Your task to perform on an android device: change notification settings in the gmail app Image 0: 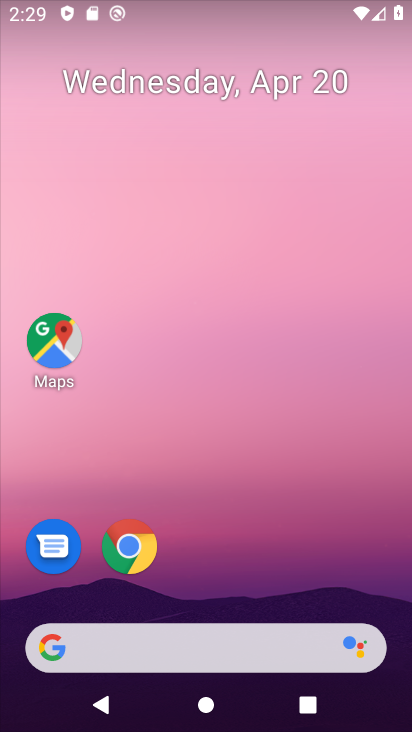
Step 0: drag from (167, 581) to (261, 98)
Your task to perform on an android device: change notification settings in the gmail app Image 1: 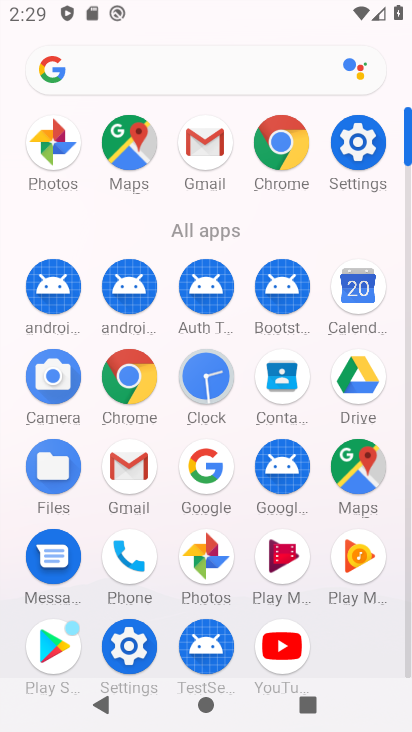
Step 1: click (119, 485)
Your task to perform on an android device: change notification settings in the gmail app Image 2: 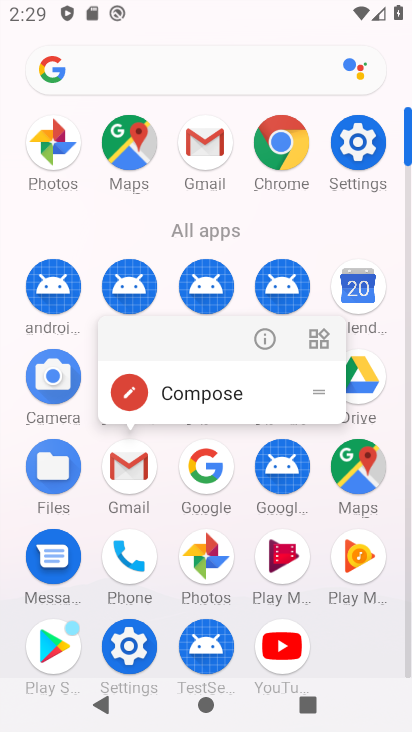
Step 2: click (130, 490)
Your task to perform on an android device: change notification settings in the gmail app Image 3: 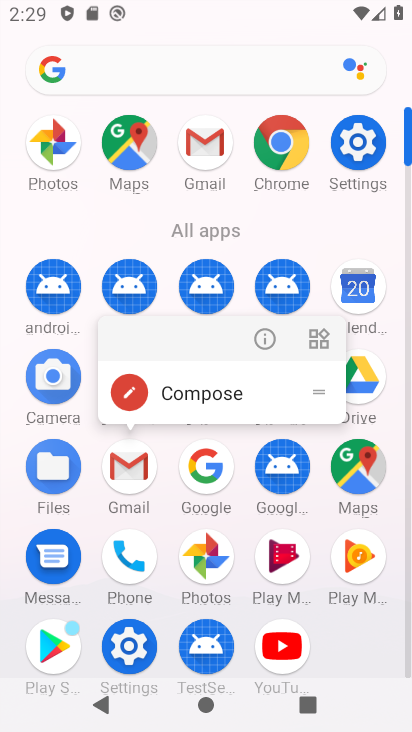
Step 3: click (131, 476)
Your task to perform on an android device: change notification settings in the gmail app Image 4: 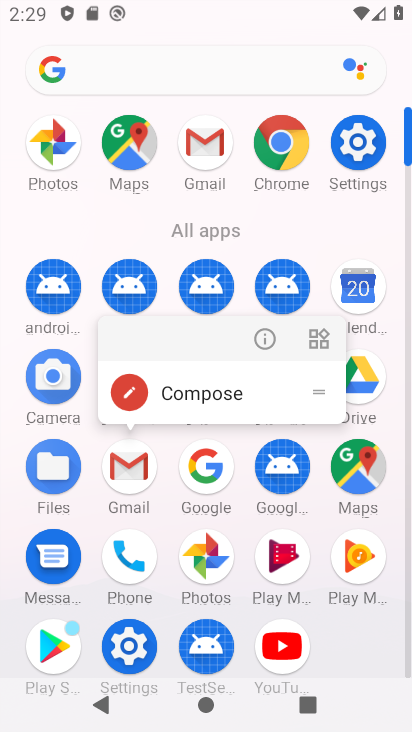
Step 4: click (133, 473)
Your task to perform on an android device: change notification settings in the gmail app Image 5: 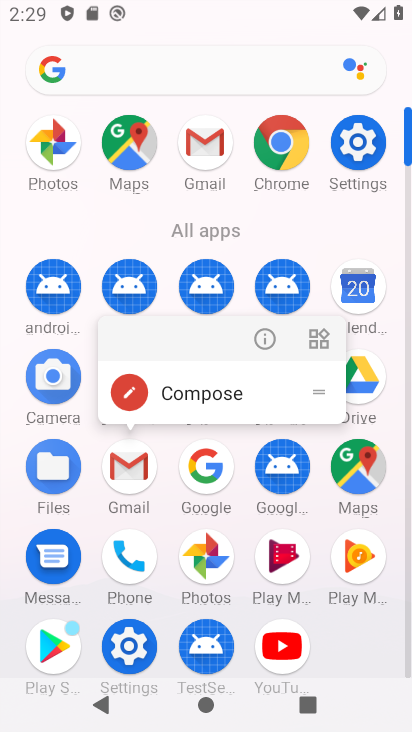
Step 5: click (133, 473)
Your task to perform on an android device: change notification settings in the gmail app Image 6: 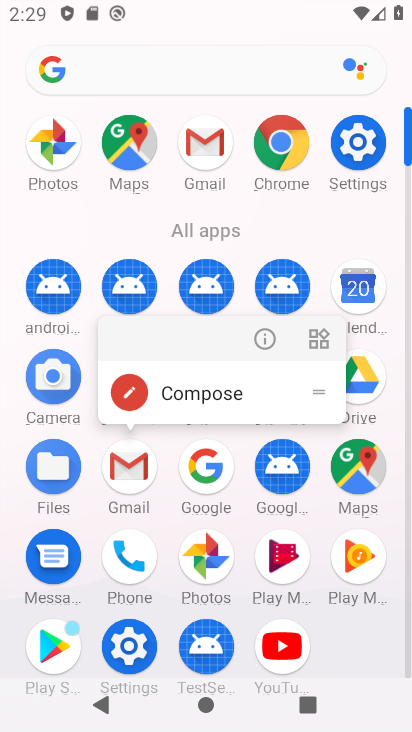
Step 6: click (133, 473)
Your task to perform on an android device: change notification settings in the gmail app Image 7: 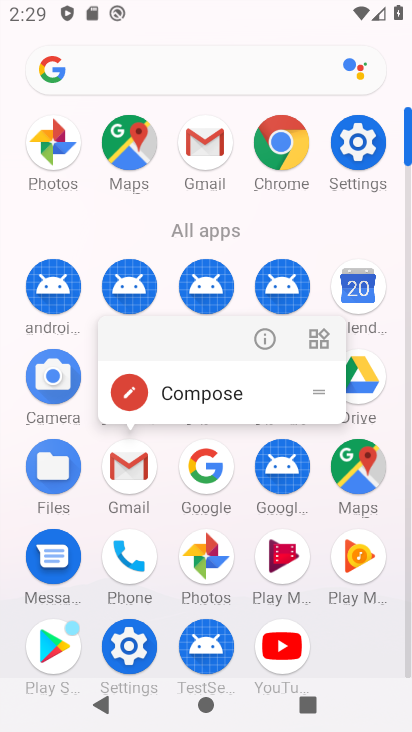
Step 7: click (149, 464)
Your task to perform on an android device: change notification settings in the gmail app Image 8: 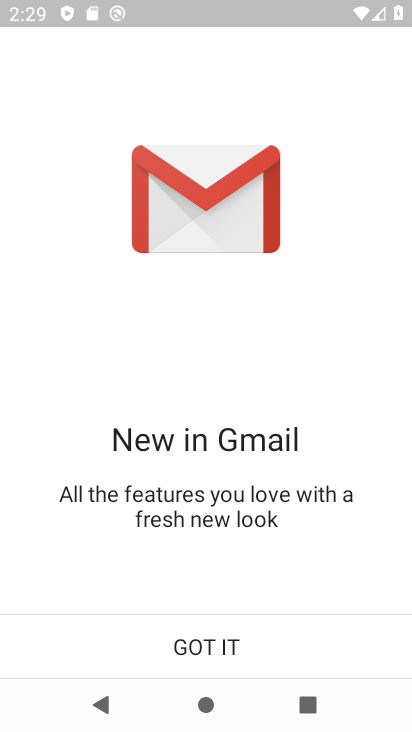
Step 8: click (249, 657)
Your task to perform on an android device: change notification settings in the gmail app Image 9: 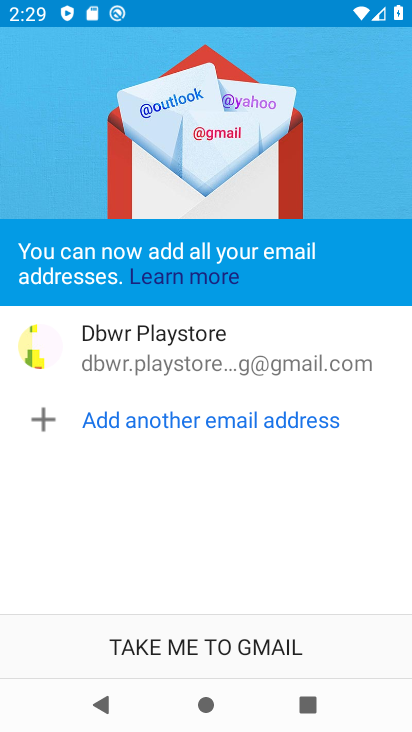
Step 9: click (207, 343)
Your task to perform on an android device: change notification settings in the gmail app Image 10: 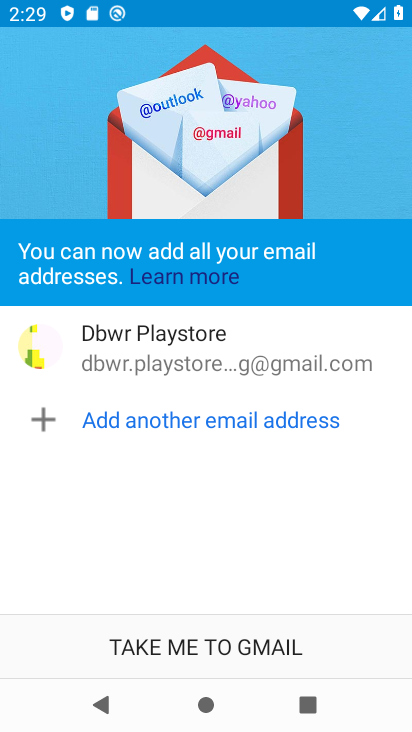
Step 10: click (207, 365)
Your task to perform on an android device: change notification settings in the gmail app Image 11: 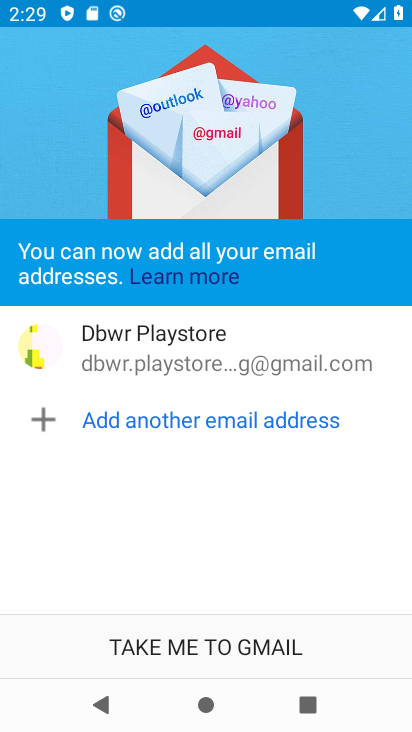
Step 11: click (162, 358)
Your task to perform on an android device: change notification settings in the gmail app Image 12: 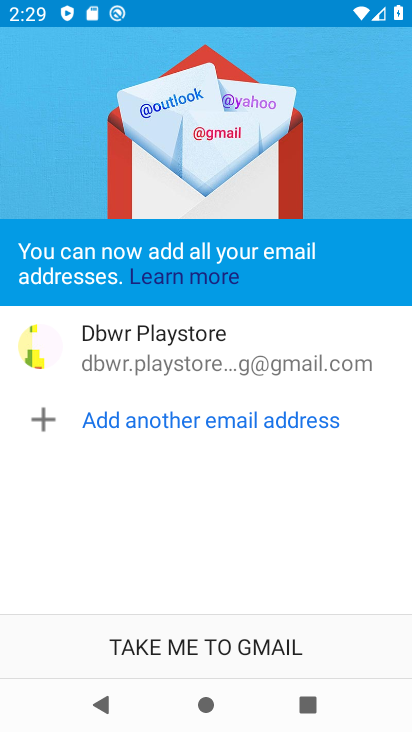
Step 12: click (200, 659)
Your task to perform on an android device: change notification settings in the gmail app Image 13: 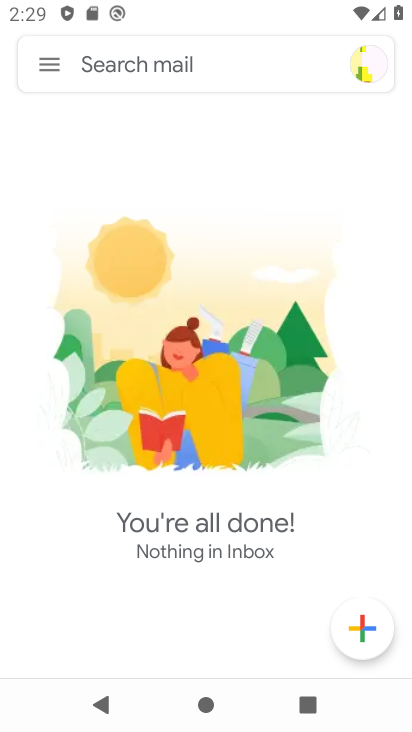
Step 13: click (59, 59)
Your task to perform on an android device: change notification settings in the gmail app Image 14: 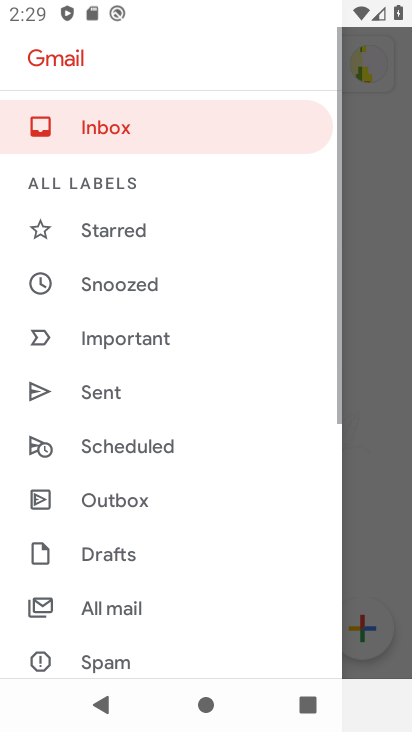
Step 14: drag from (151, 564) to (232, 216)
Your task to perform on an android device: change notification settings in the gmail app Image 15: 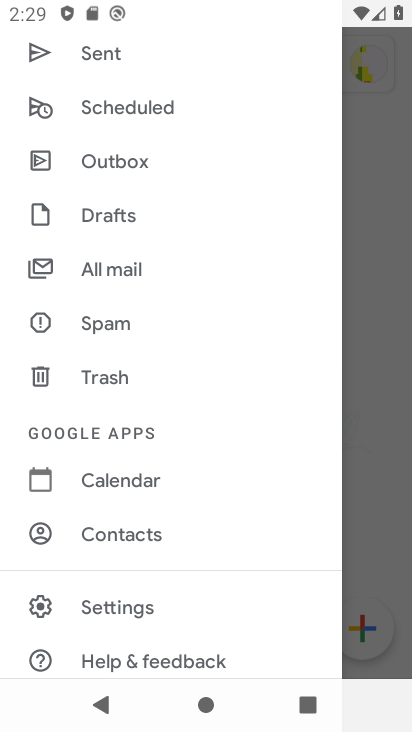
Step 15: click (146, 612)
Your task to perform on an android device: change notification settings in the gmail app Image 16: 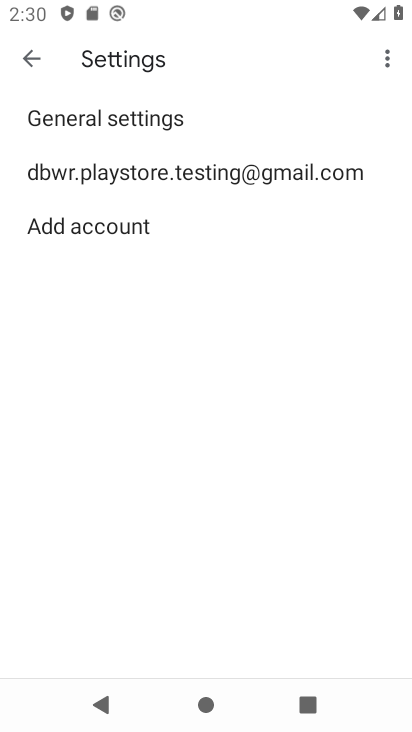
Step 16: click (182, 123)
Your task to perform on an android device: change notification settings in the gmail app Image 17: 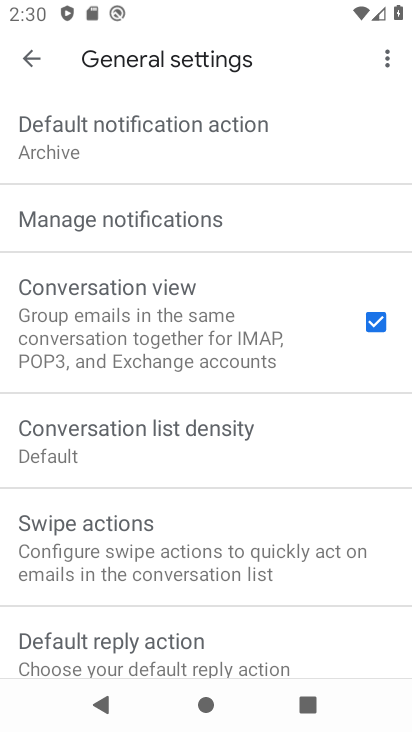
Step 17: drag from (169, 589) to (219, 578)
Your task to perform on an android device: change notification settings in the gmail app Image 18: 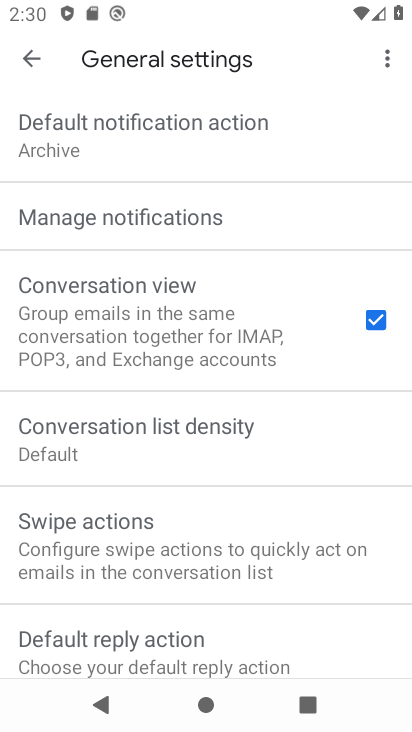
Step 18: click (200, 224)
Your task to perform on an android device: change notification settings in the gmail app Image 19: 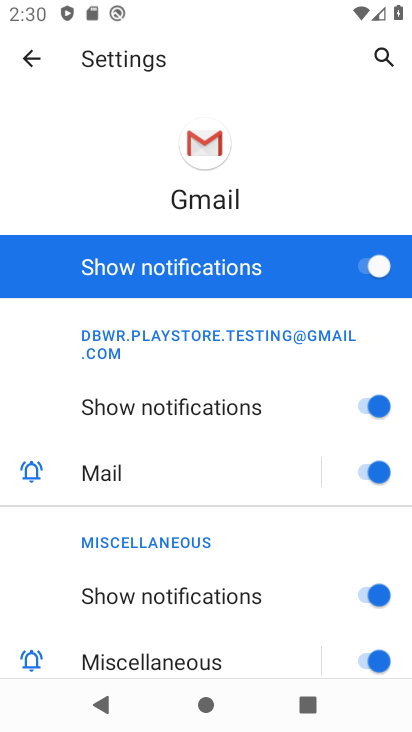
Step 19: click (356, 460)
Your task to perform on an android device: change notification settings in the gmail app Image 20: 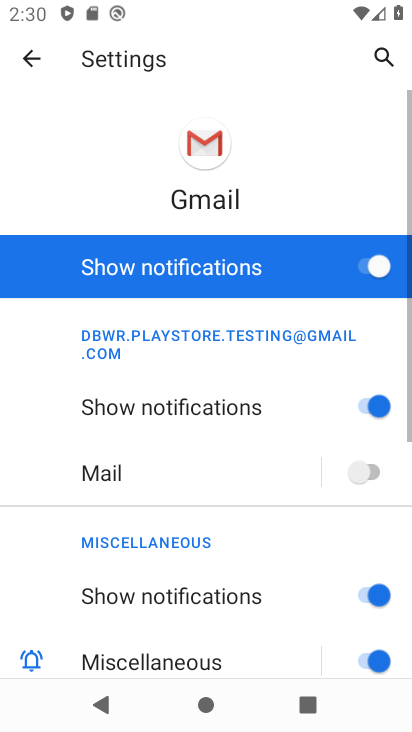
Step 20: drag from (152, 535) to (266, 277)
Your task to perform on an android device: change notification settings in the gmail app Image 21: 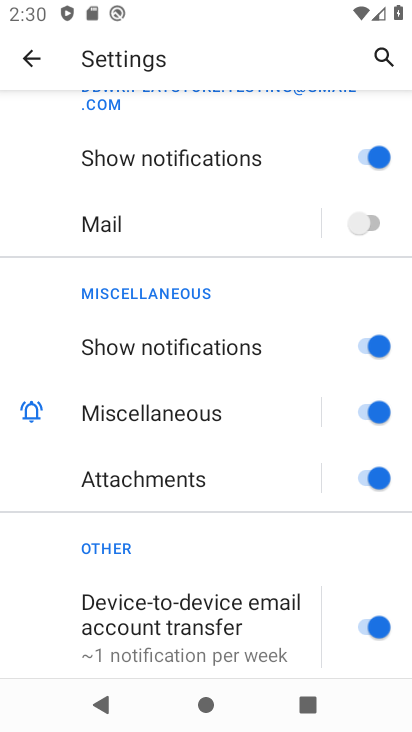
Step 21: click (365, 346)
Your task to perform on an android device: change notification settings in the gmail app Image 22: 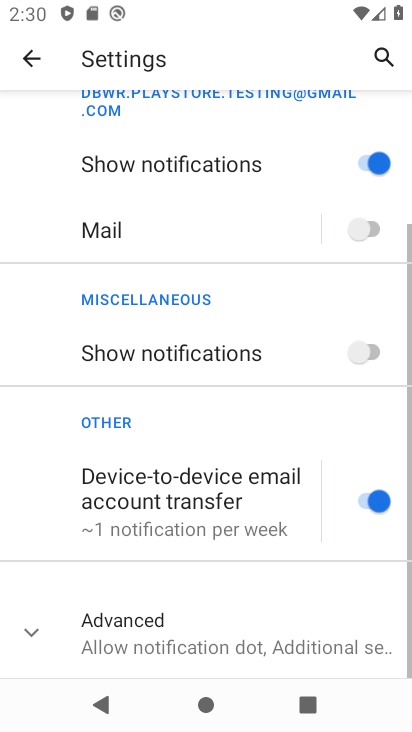
Step 22: drag from (207, 576) to (307, 290)
Your task to perform on an android device: change notification settings in the gmail app Image 23: 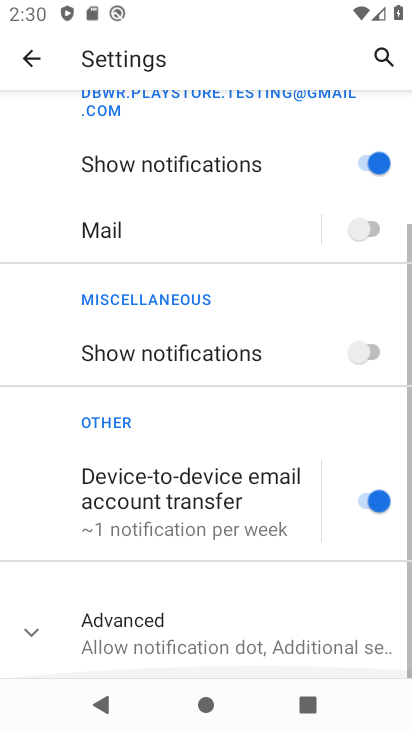
Step 23: click (185, 627)
Your task to perform on an android device: change notification settings in the gmail app Image 24: 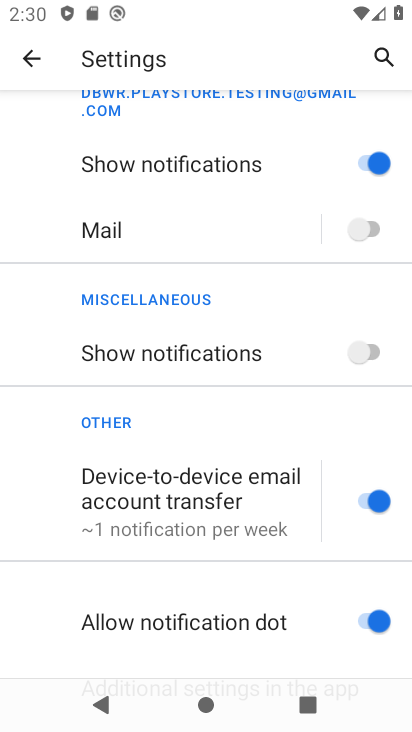
Step 24: click (382, 625)
Your task to perform on an android device: change notification settings in the gmail app Image 25: 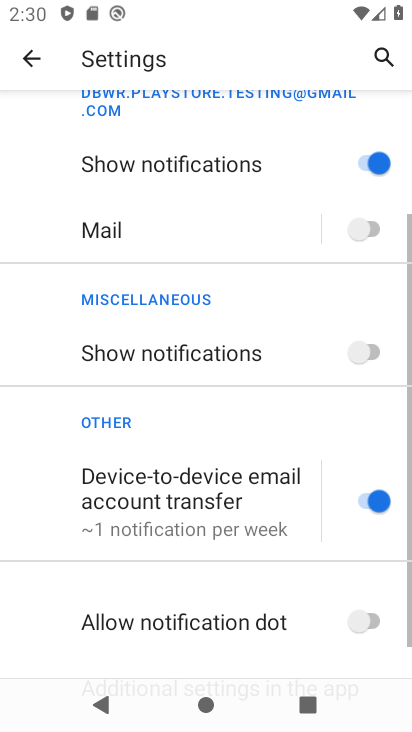
Step 25: drag from (242, 624) to (324, 307)
Your task to perform on an android device: change notification settings in the gmail app Image 26: 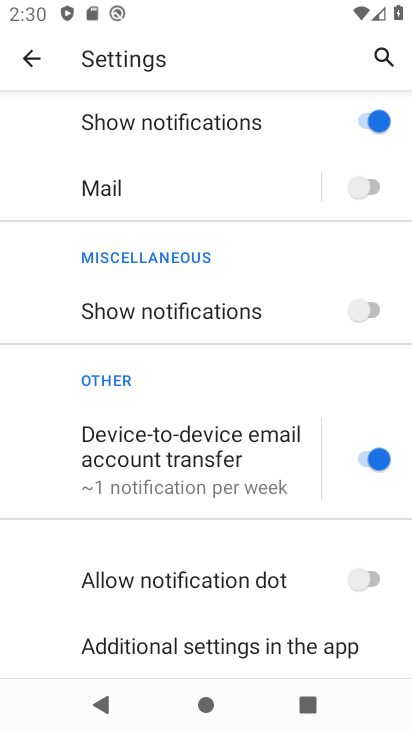
Step 26: click (363, 457)
Your task to perform on an android device: change notification settings in the gmail app Image 27: 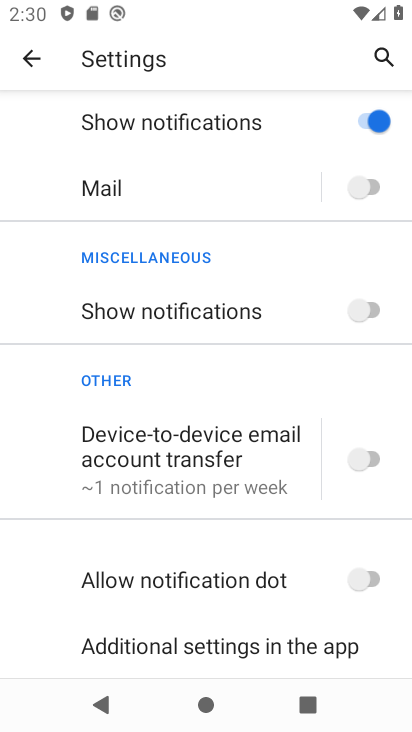
Step 27: task complete